Your task to perform on an android device: turn notification dots on Image 0: 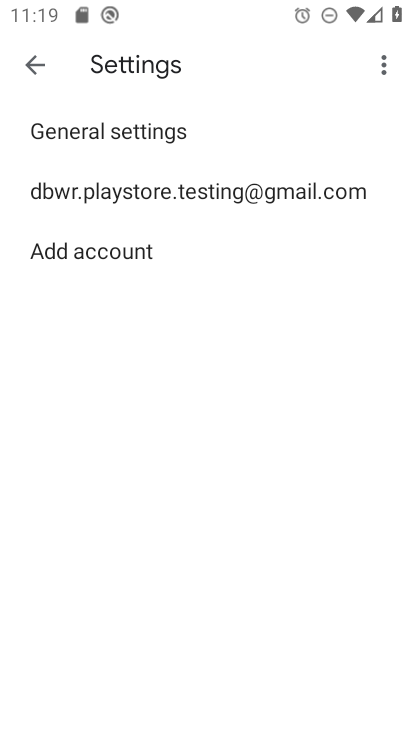
Step 0: press home button
Your task to perform on an android device: turn notification dots on Image 1: 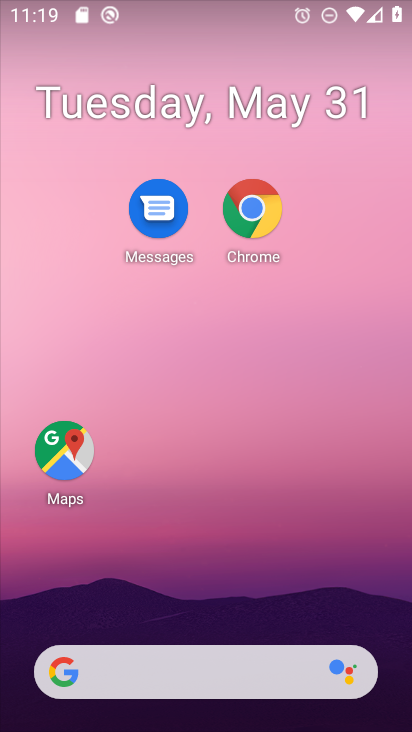
Step 1: drag from (219, 620) to (209, 106)
Your task to perform on an android device: turn notification dots on Image 2: 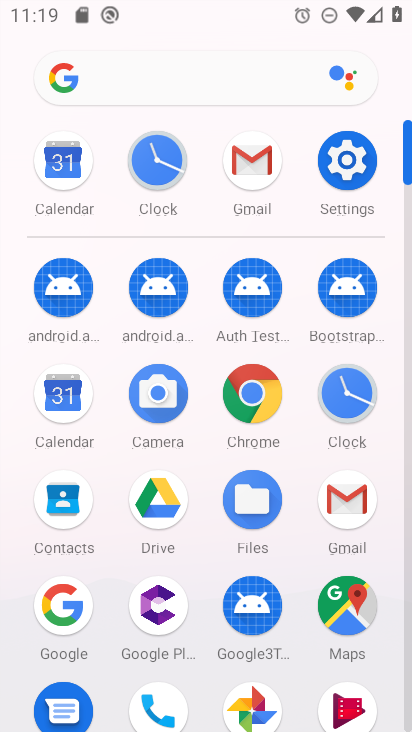
Step 2: click (343, 156)
Your task to perform on an android device: turn notification dots on Image 3: 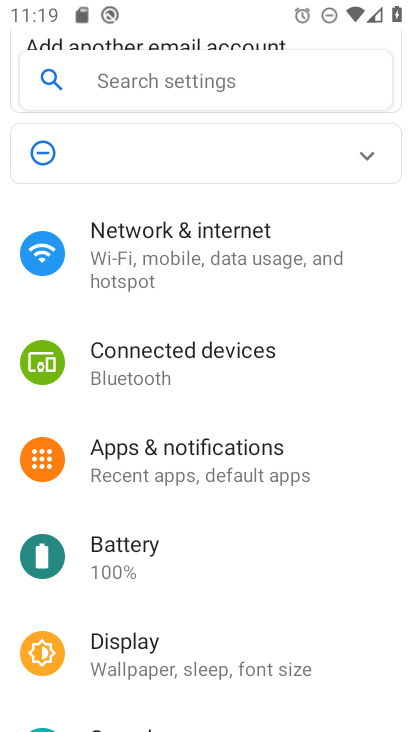
Step 3: click (243, 455)
Your task to perform on an android device: turn notification dots on Image 4: 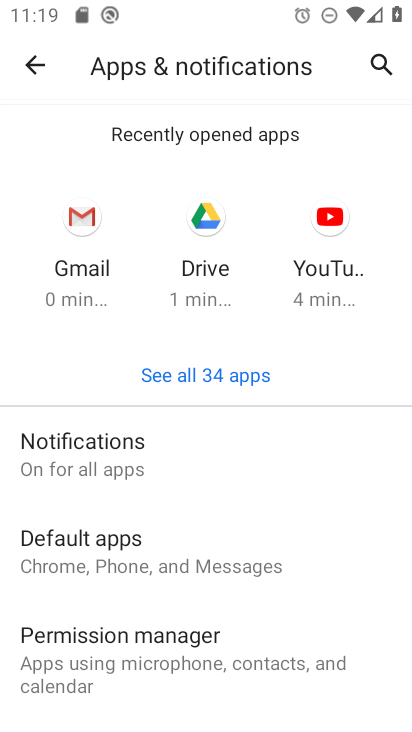
Step 4: click (159, 449)
Your task to perform on an android device: turn notification dots on Image 5: 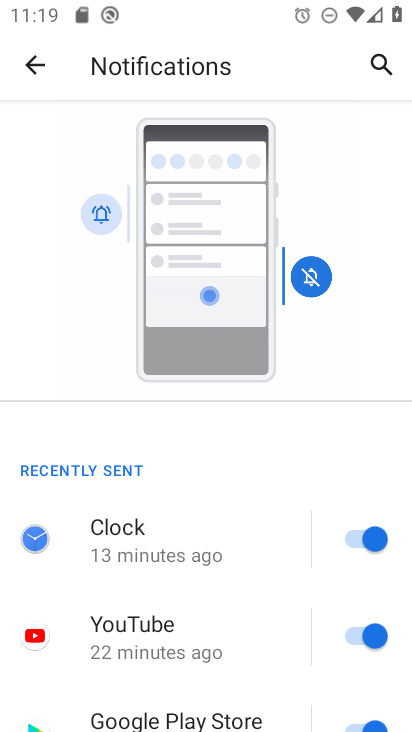
Step 5: drag from (248, 701) to (280, 220)
Your task to perform on an android device: turn notification dots on Image 6: 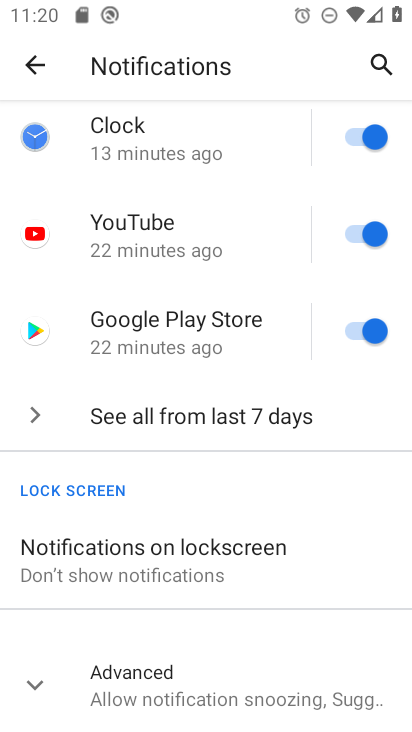
Step 6: click (150, 675)
Your task to perform on an android device: turn notification dots on Image 7: 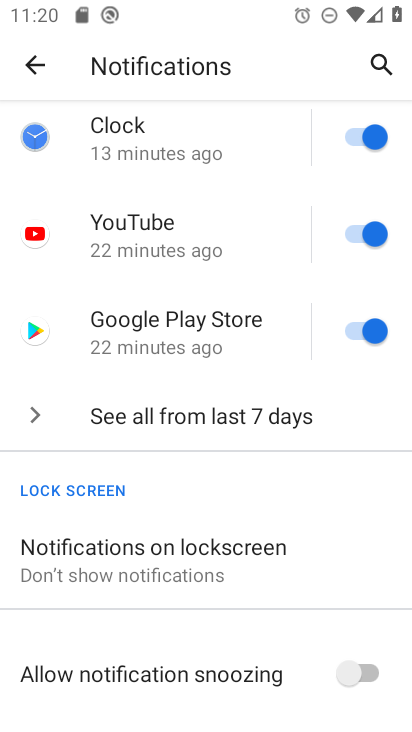
Step 7: task complete